Your task to perform on an android device: set the stopwatch Image 0: 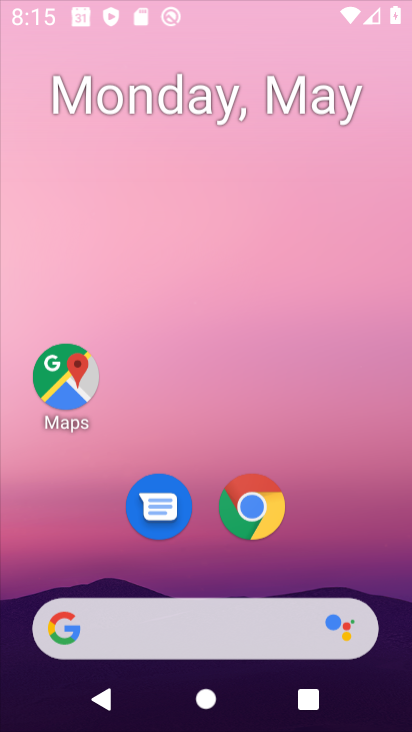
Step 0: click (187, 204)
Your task to perform on an android device: set the stopwatch Image 1: 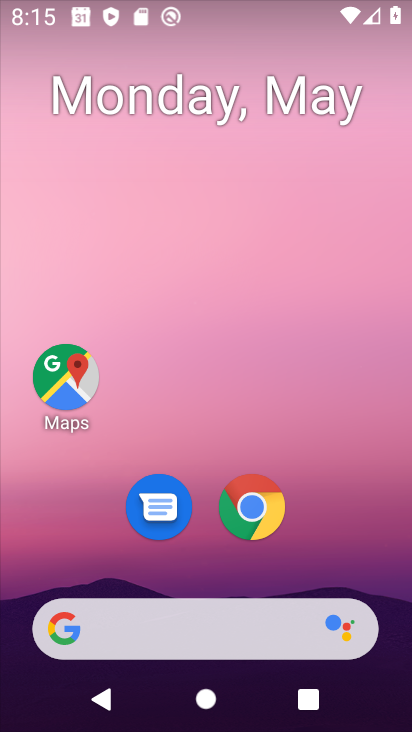
Step 1: drag from (218, 553) to (300, 16)
Your task to perform on an android device: set the stopwatch Image 2: 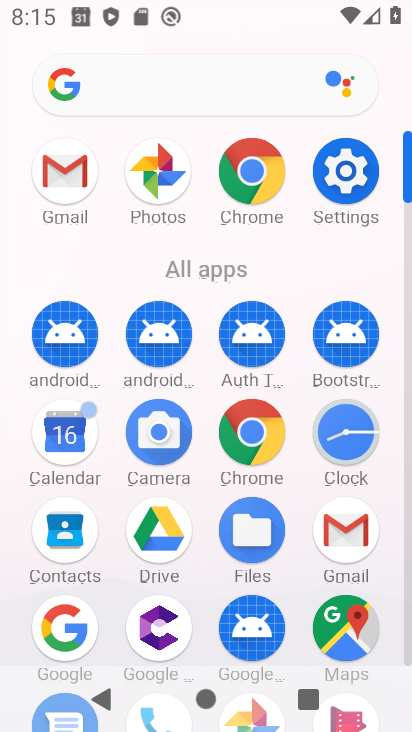
Step 2: click (365, 413)
Your task to perform on an android device: set the stopwatch Image 3: 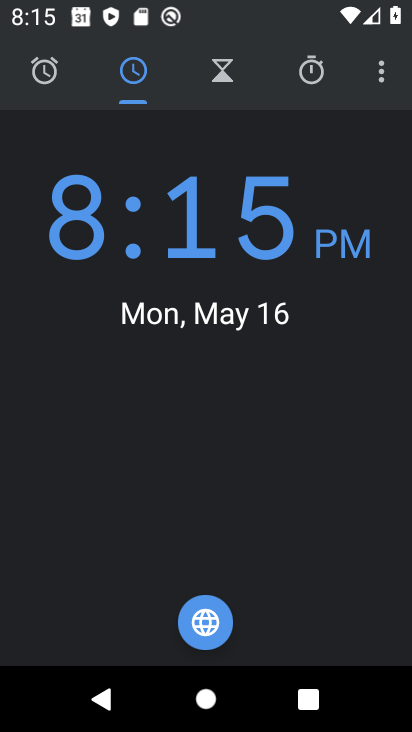
Step 3: click (314, 60)
Your task to perform on an android device: set the stopwatch Image 4: 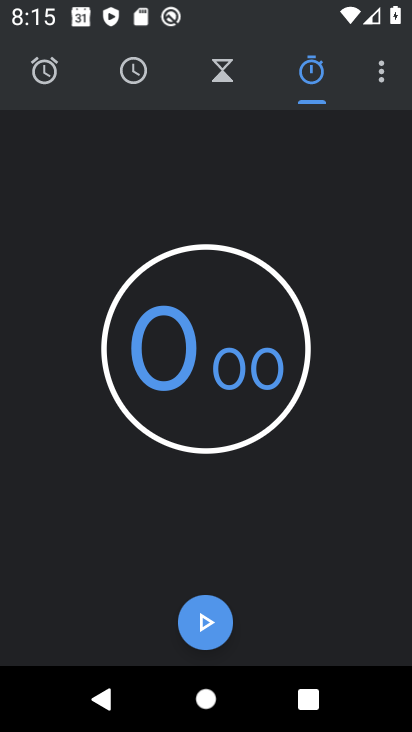
Step 4: click (203, 613)
Your task to perform on an android device: set the stopwatch Image 5: 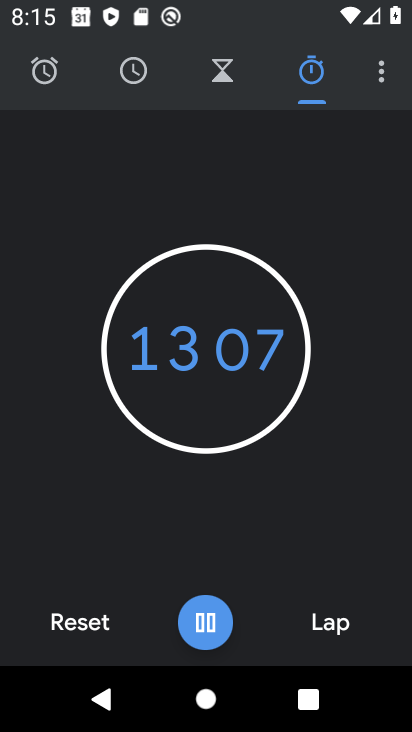
Step 5: task complete